Your task to perform on an android device: Go to Amazon Image 0: 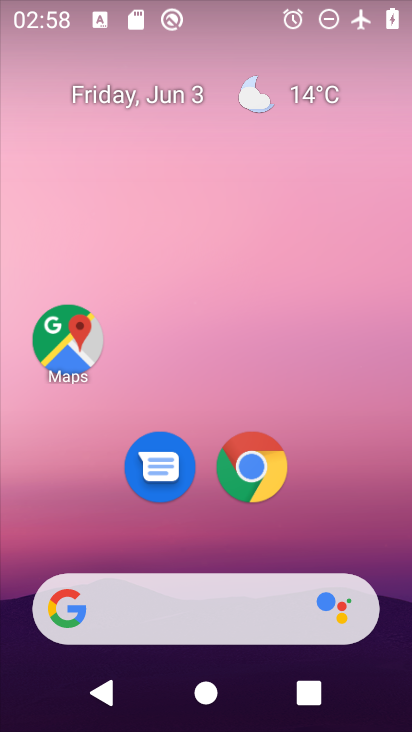
Step 0: click (254, 464)
Your task to perform on an android device: Go to Amazon Image 1: 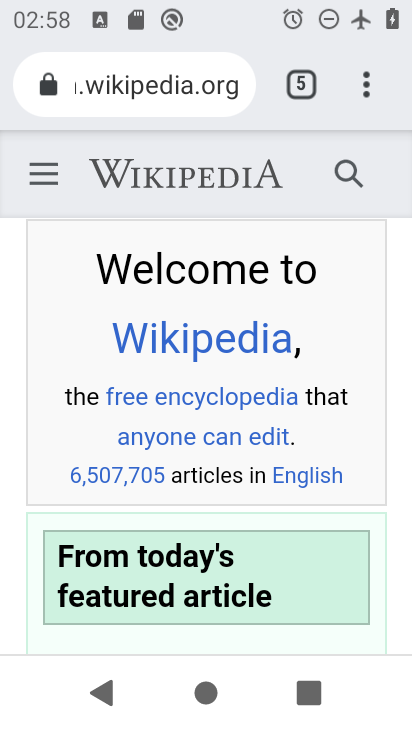
Step 1: click (229, 65)
Your task to perform on an android device: Go to Amazon Image 2: 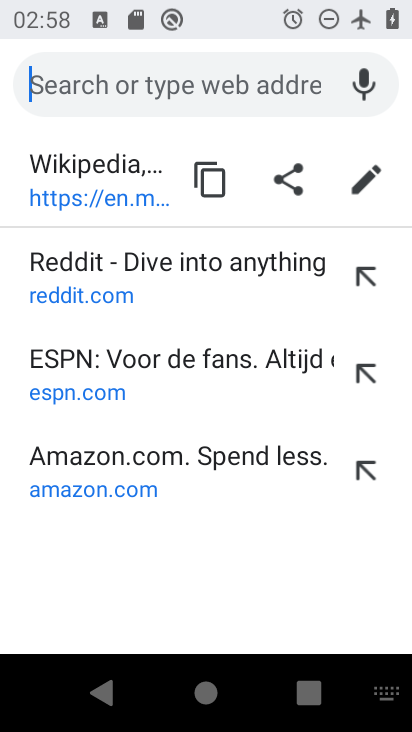
Step 2: type "amazon"
Your task to perform on an android device: Go to Amazon Image 3: 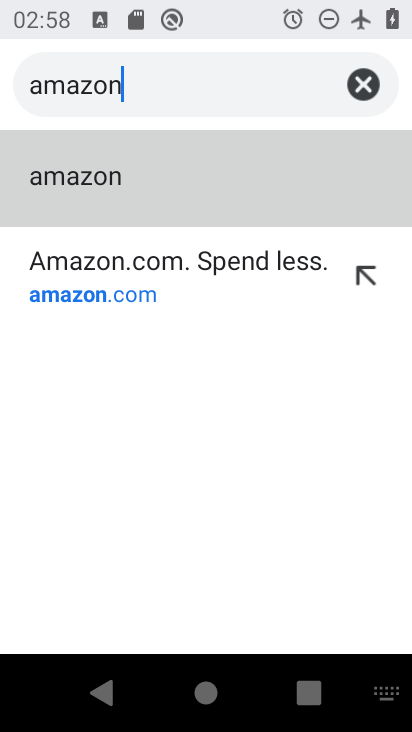
Step 3: click (132, 195)
Your task to perform on an android device: Go to Amazon Image 4: 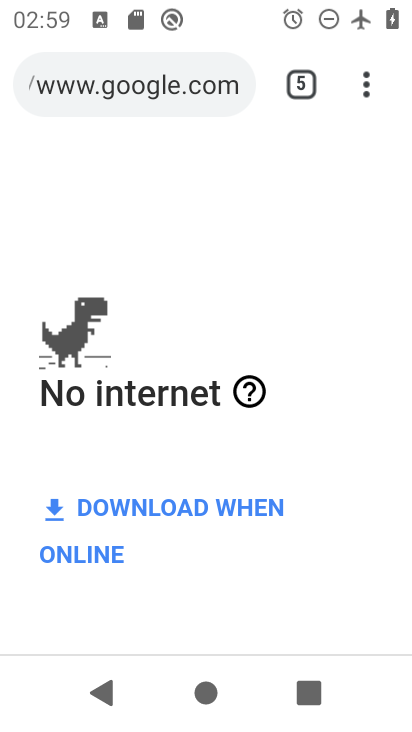
Step 4: task complete